Your task to perform on an android device: Show me productivity apps on the Play Store Image 0: 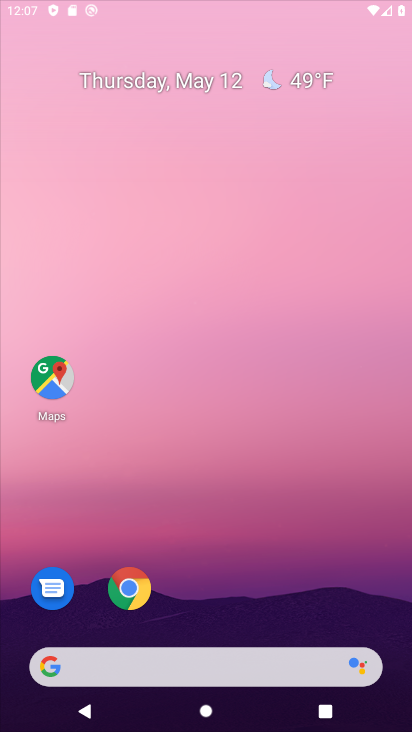
Step 0: drag from (281, 603) to (146, 103)
Your task to perform on an android device: Show me productivity apps on the Play Store Image 1: 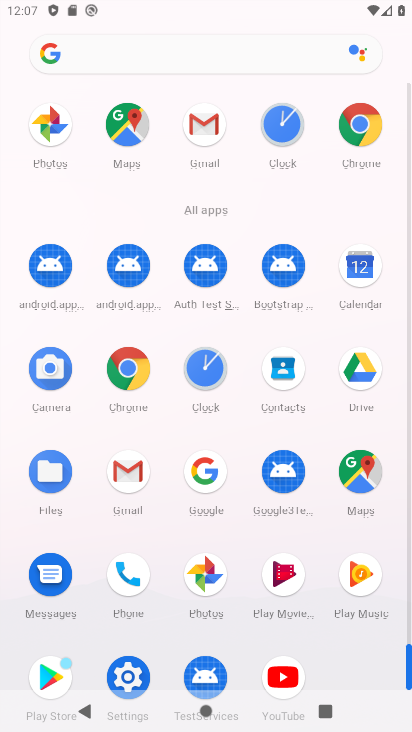
Step 1: drag from (237, 538) to (281, 89)
Your task to perform on an android device: Show me productivity apps on the Play Store Image 2: 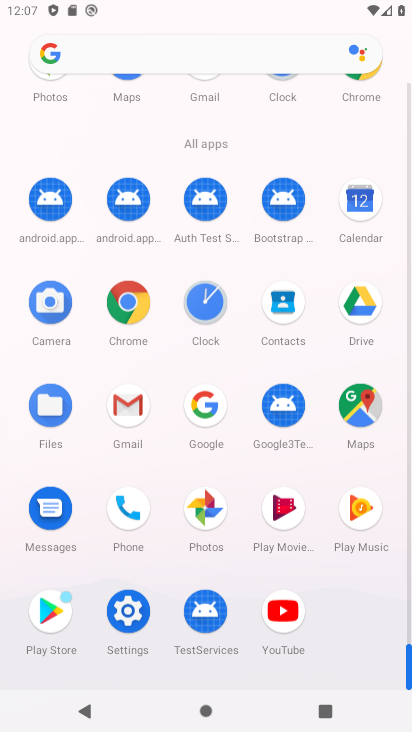
Step 2: drag from (292, 444) to (270, 0)
Your task to perform on an android device: Show me productivity apps on the Play Store Image 3: 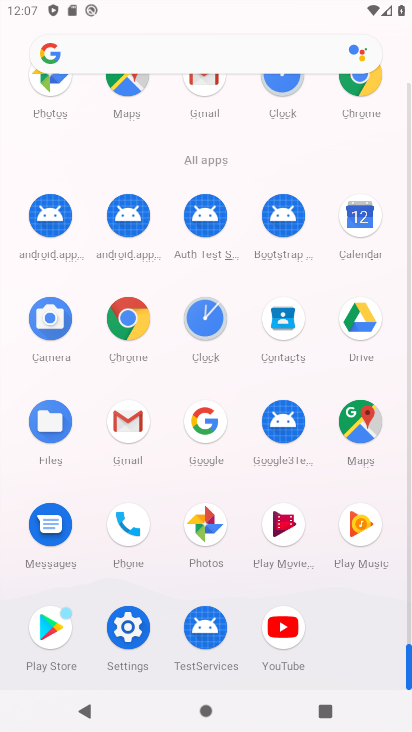
Step 3: click (55, 625)
Your task to perform on an android device: Show me productivity apps on the Play Store Image 4: 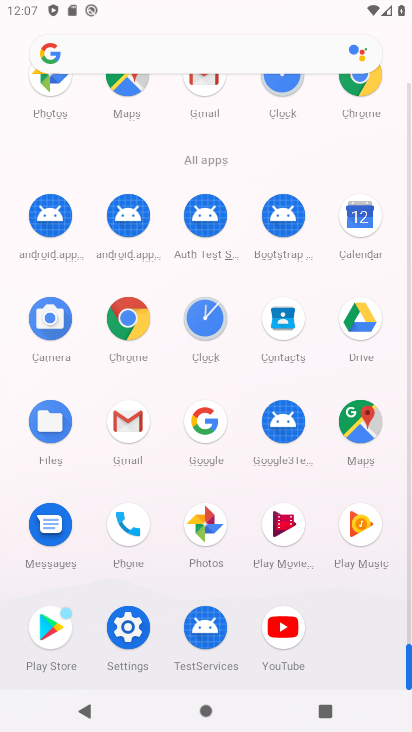
Step 4: click (55, 625)
Your task to perform on an android device: Show me productivity apps on the Play Store Image 5: 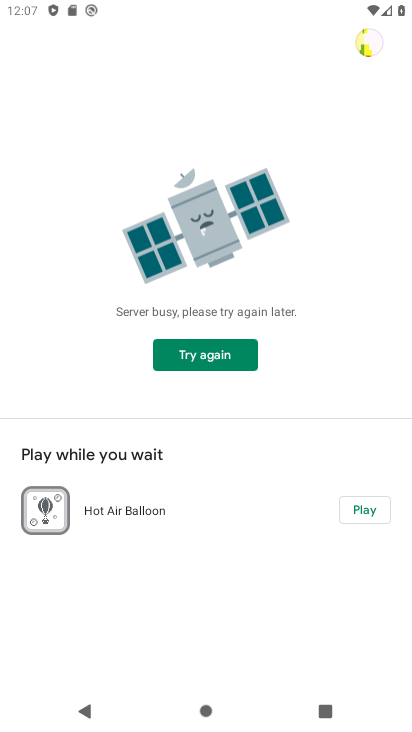
Step 5: task complete